Your task to perform on an android device: change the clock style Image 0: 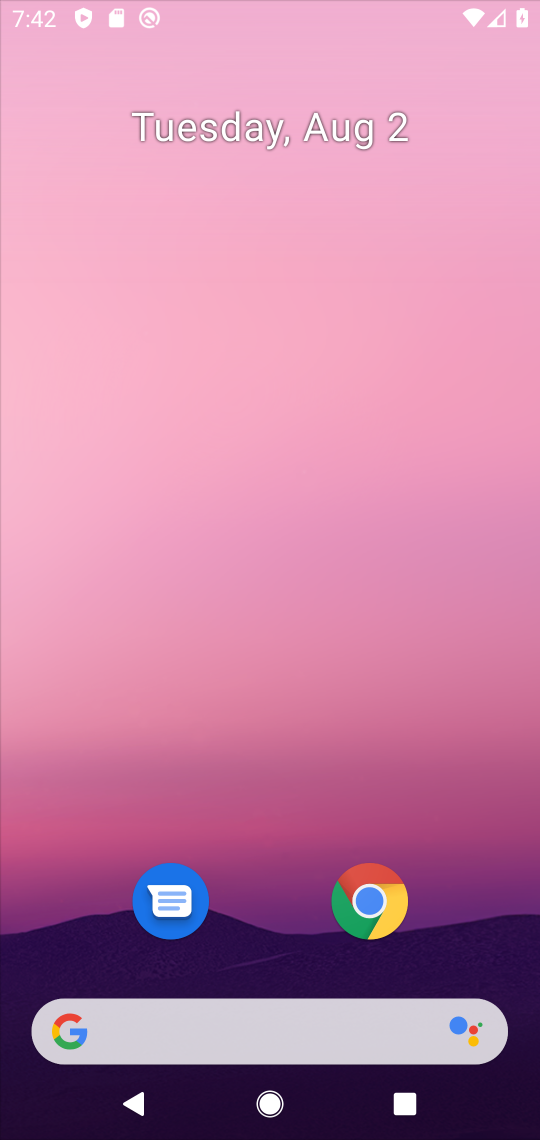
Step 0: drag from (464, 921) to (340, 285)
Your task to perform on an android device: change the clock style Image 1: 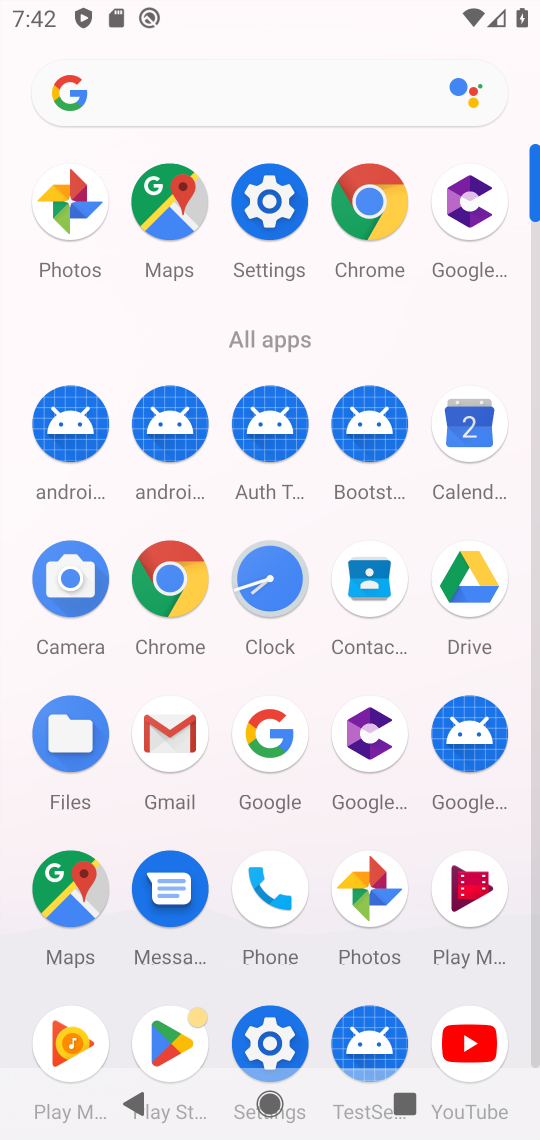
Step 1: click (240, 575)
Your task to perform on an android device: change the clock style Image 2: 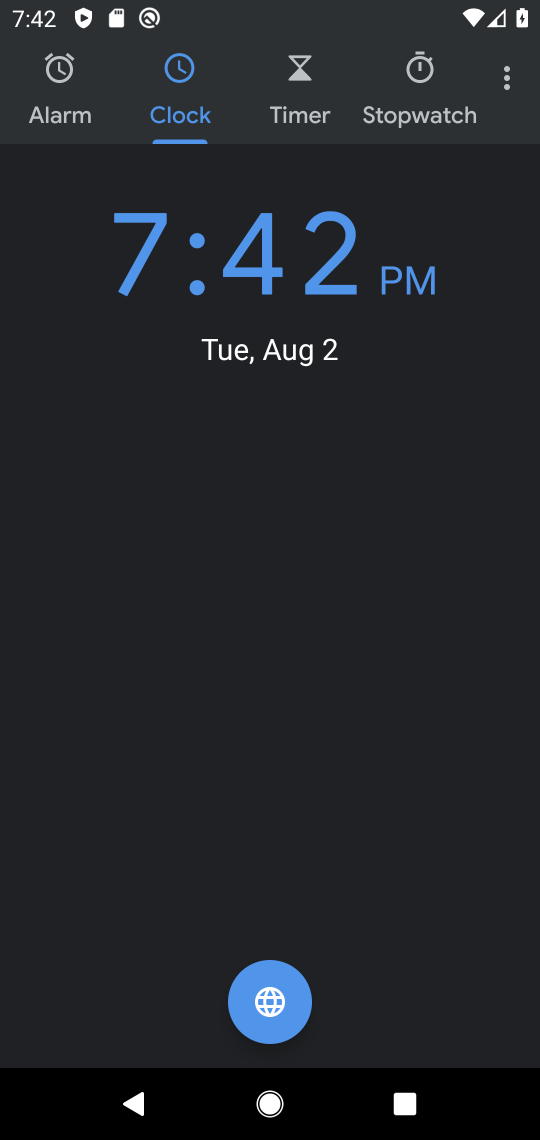
Step 2: click (527, 96)
Your task to perform on an android device: change the clock style Image 3: 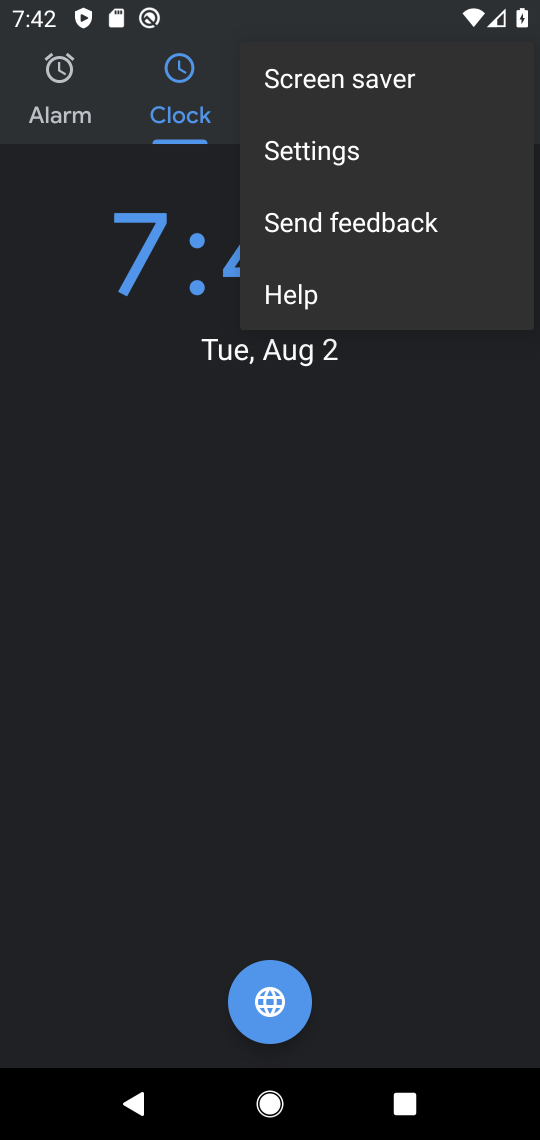
Step 3: click (386, 157)
Your task to perform on an android device: change the clock style Image 4: 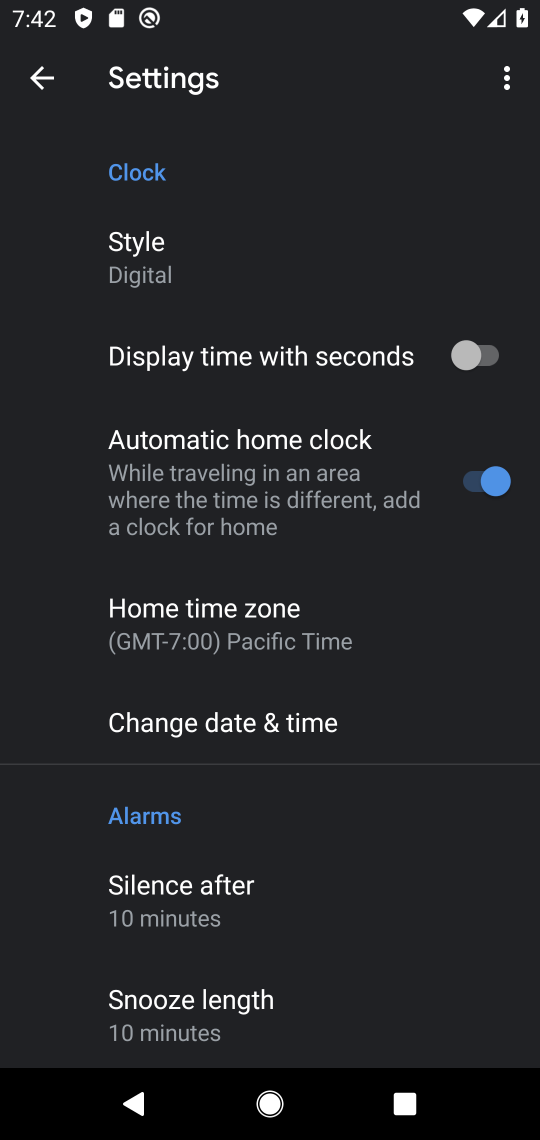
Step 4: click (169, 274)
Your task to perform on an android device: change the clock style Image 5: 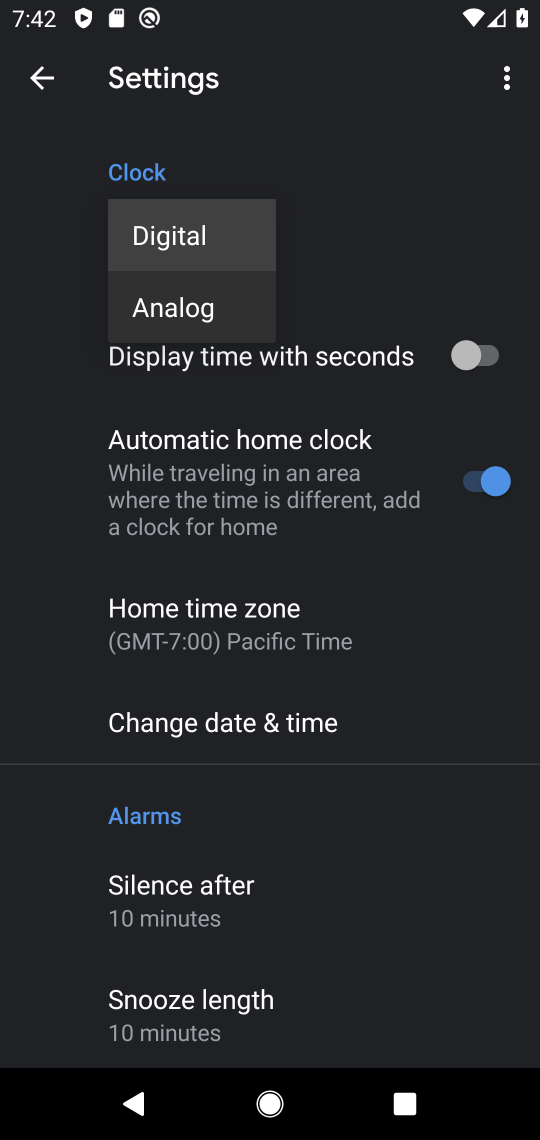
Step 5: click (175, 295)
Your task to perform on an android device: change the clock style Image 6: 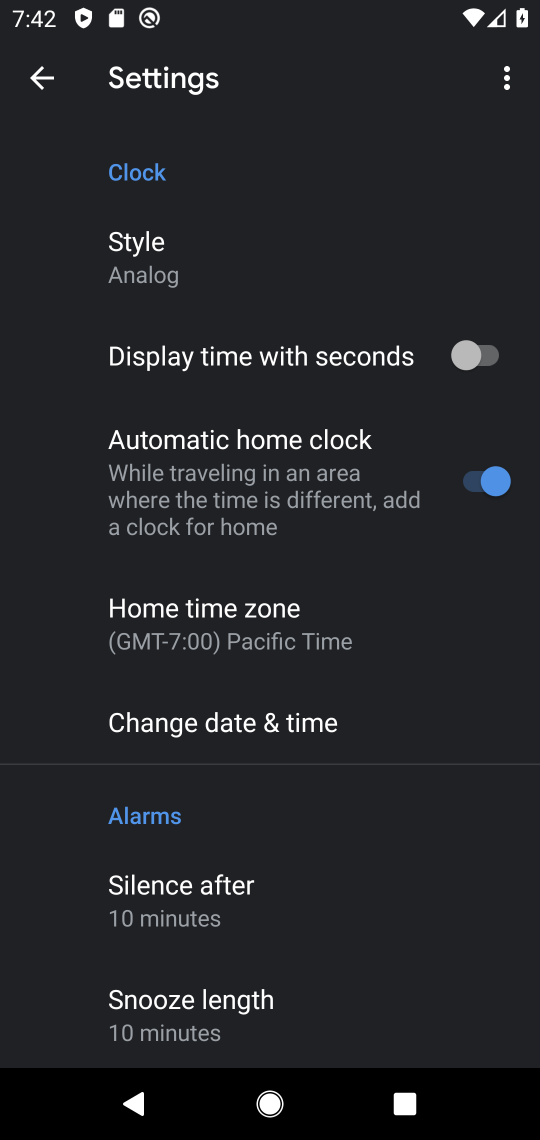
Step 6: task complete